Your task to perform on an android device: Show me productivity apps on the Play Store Image 0: 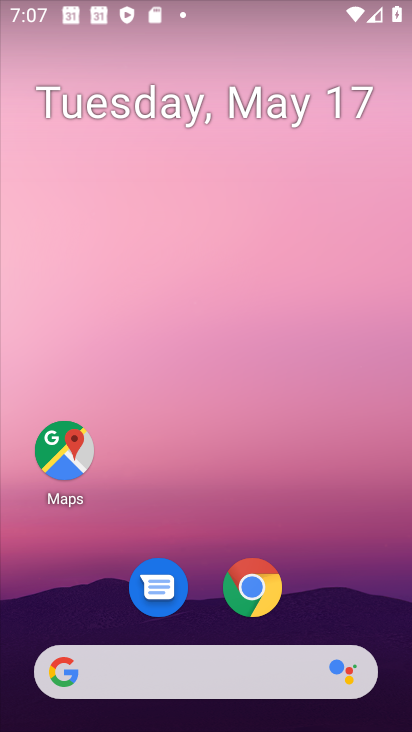
Step 0: drag from (224, 715) to (157, 228)
Your task to perform on an android device: Show me productivity apps on the Play Store Image 1: 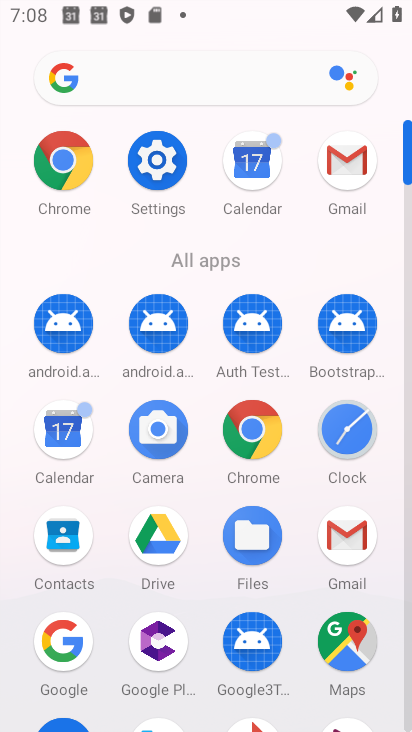
Step 1: drag from (112, 590) to (106, 362)
Your task to perform on an android device: Show me productivity apps on the Play Store Image 2: 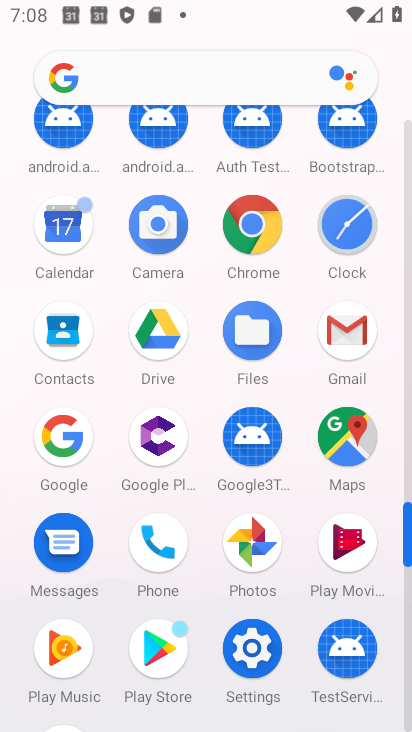
Step 2: click (148, 638)
Your task to perform on an android device: Show me productivity apps on the Play Store Image 3: 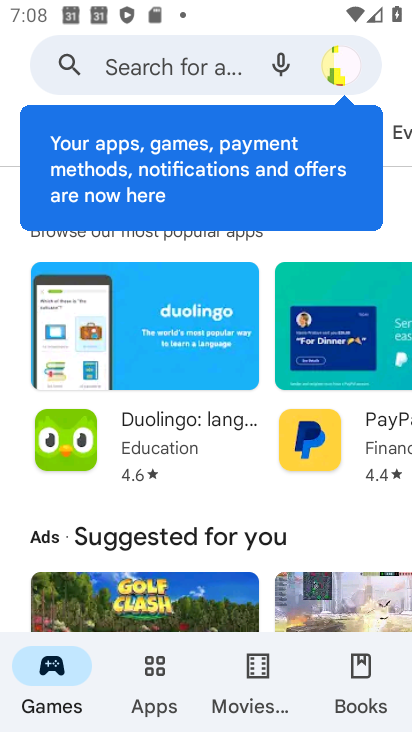
Step 3: click (223, 61)
Your task to perform on an android device: Show me productivity apps on the Play Store Image 4: 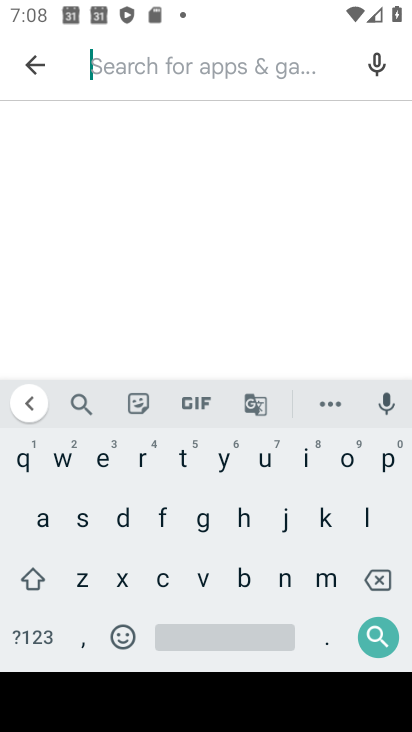
Step 4: click (393, 461)
Your task to perform on an android device: Show me productivity apps on the Play Store Image 5: 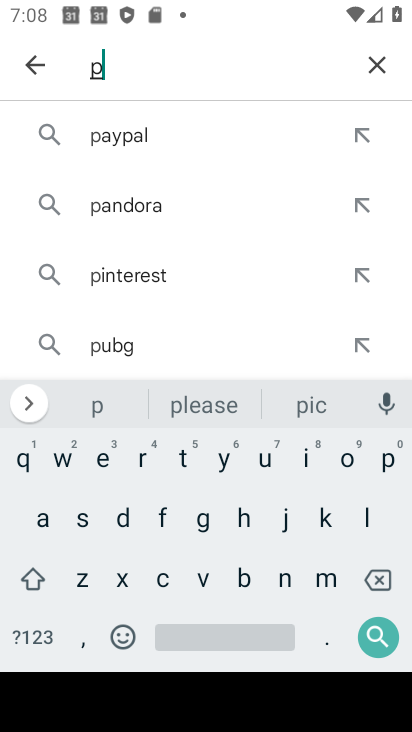
Step 5: click (147, 462)
Your task to perform on an android device: Show me productivity apps on the Play Store Image 6: 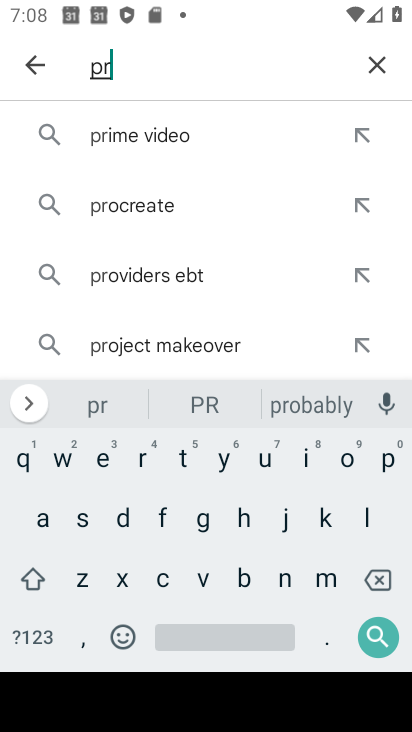
Step 6: click (341, 460)
Your task to perform on an android device: Show me productivity apps on the Play Store Image 7: 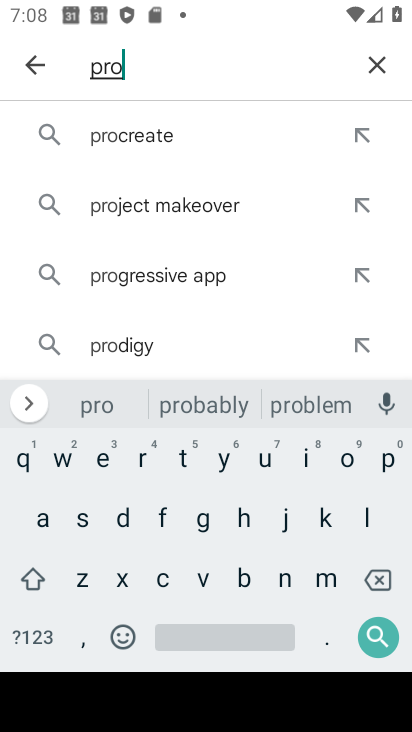
Step 7: click (122, 519)
Your task to perform on an android device: Show me productivity apps on the Play Store Image 8: 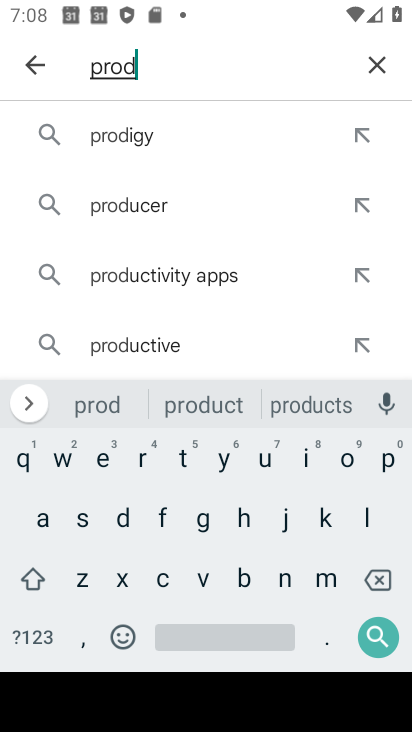
Step 8: click (261, 463)
Your task to perform on an android device: Show me productivity apps on the Play Store Image 9: 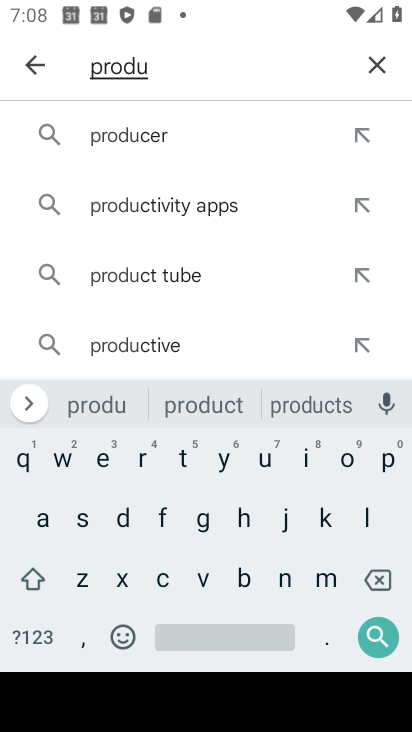
Step 9: click (160, 578)
Your task to perform on an android device: Show me productivity apps on the Play Store Image 10: 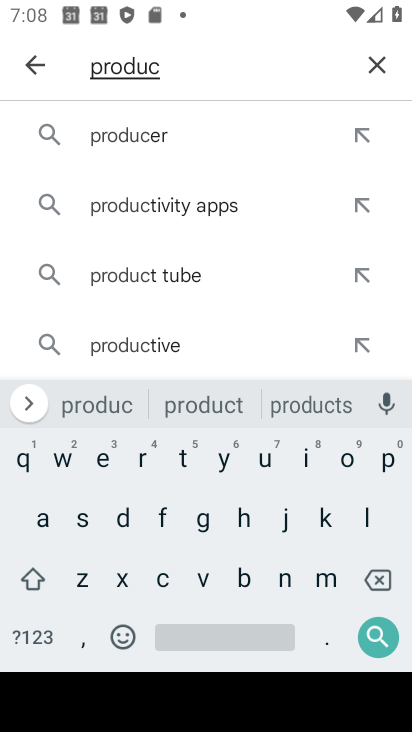
Step 10: click (165, 208)
Your task to perform on an android device: Show me productivity apps on the Play Store Image 11: 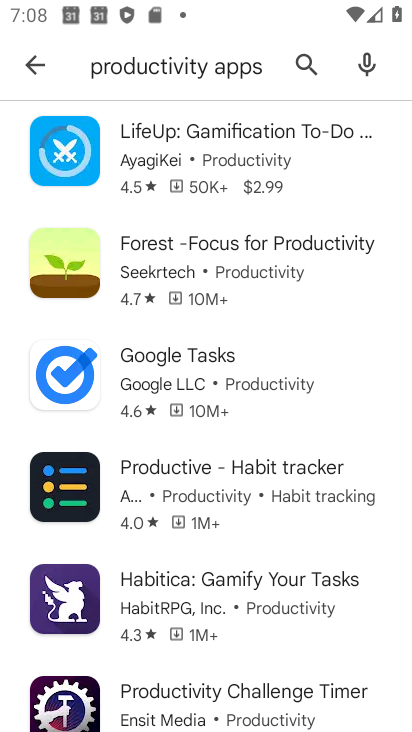
Step 11: task complete